Your task to perform on an android device: Open Android settings Image 0: 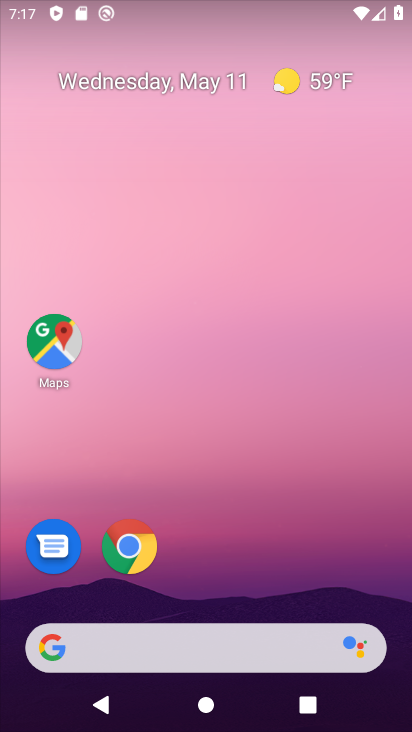
Step 0: drag from (315, 569) to (300, 230)
Your task to perform on an android device: Open Android settings Image 1: 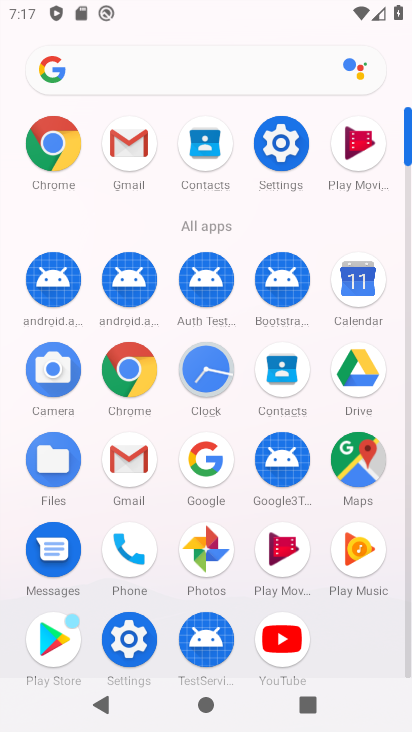
Step 1: click (134, 634)
Your task to perform on an android device: Open Android settings Image 2: 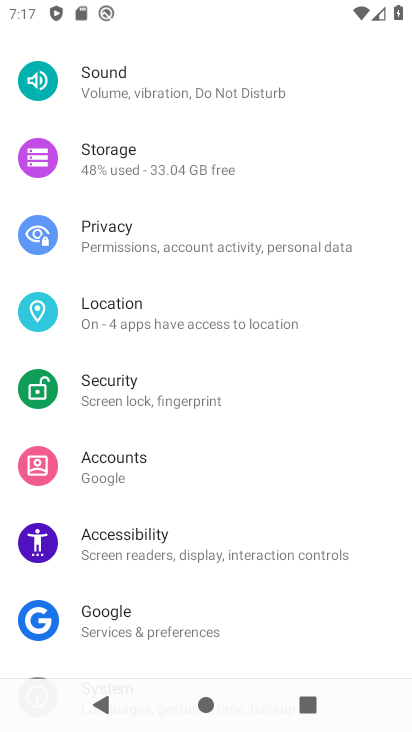
Step 2: task complete